Your task to perform on an android device: turn off picture-in-picture Image 0: 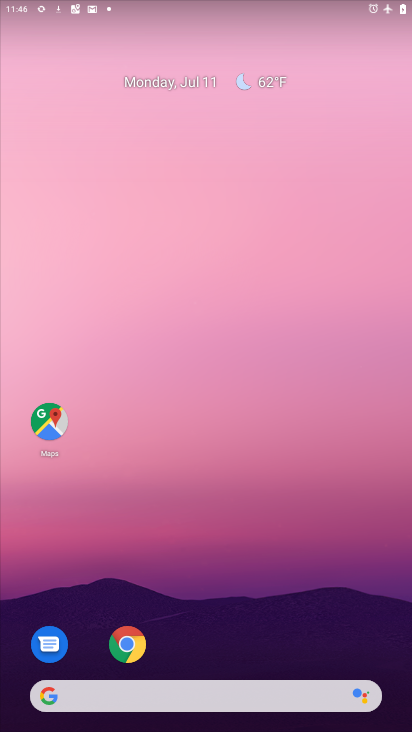
Step 0: drag from (198, 662) to (218, 43)
Your task to perform on an android device: turn off picture-in-picture Image 1: 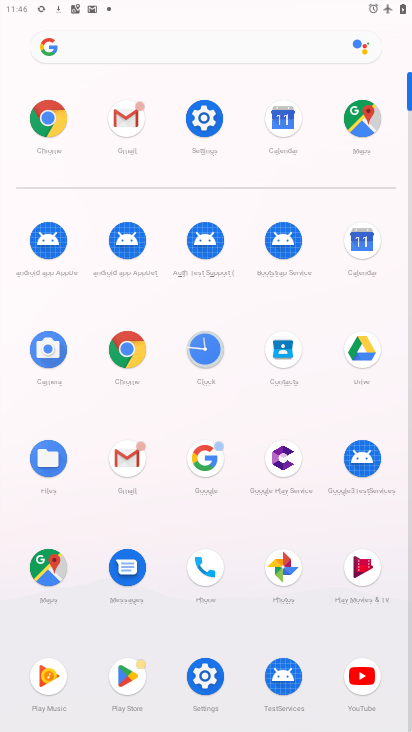
Step 1: click (198, 125)
Your task to perform on an android device: turn off picture-in-picture Image 2: 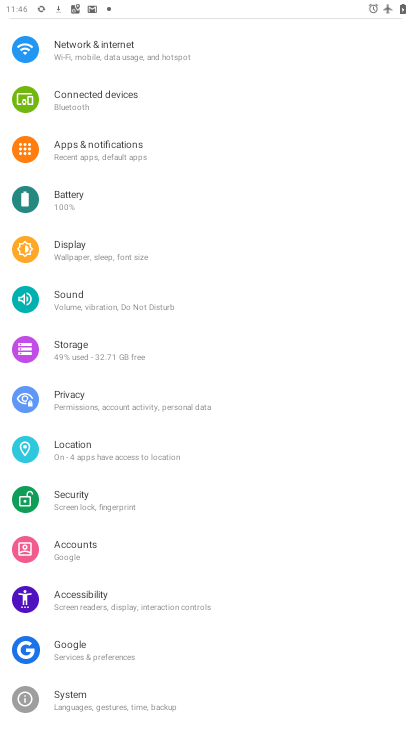
Step 2: drag from (144, 552) to (121, 77)
Your task to perform on an android device: turn off picture-in-picture Image 3: 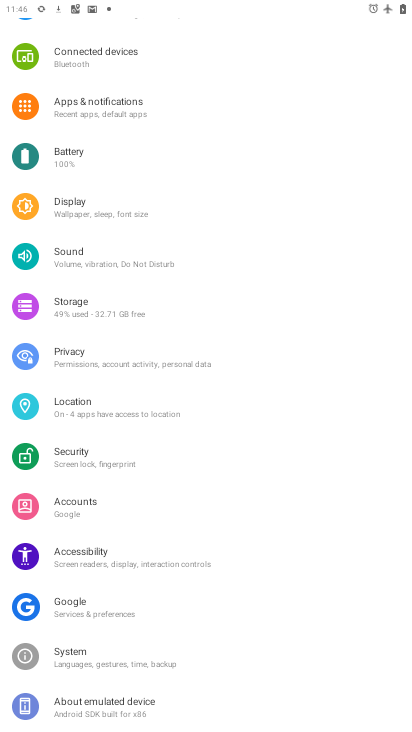
Step 3: drag from (82, 712) to (85, 140)
Your task to perform on an android device: turn off picture-in-picture Image 4: 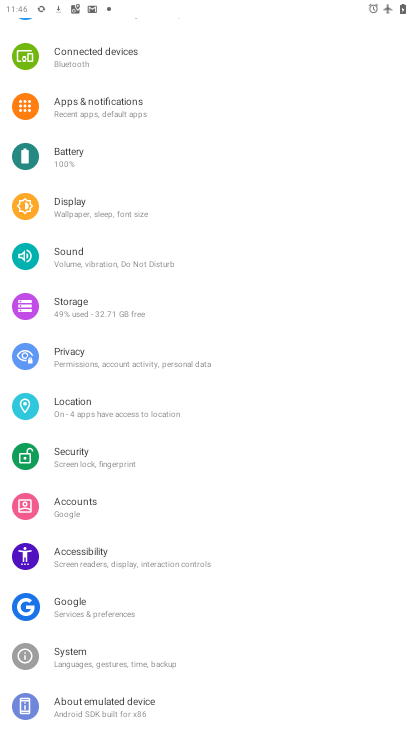
Step 4: click (100, 111)
Your task to perform on an android device: turn off picture-in-picture Image 5: 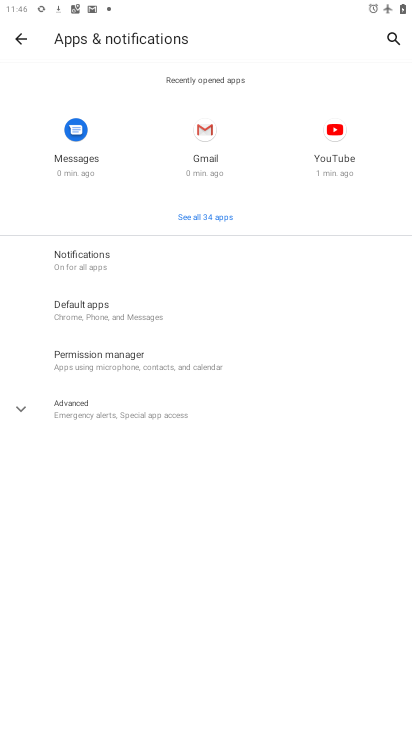
Step 5: click (94, 264)
Your task to perform on an android device: turn off picture-in-picture Image 6: 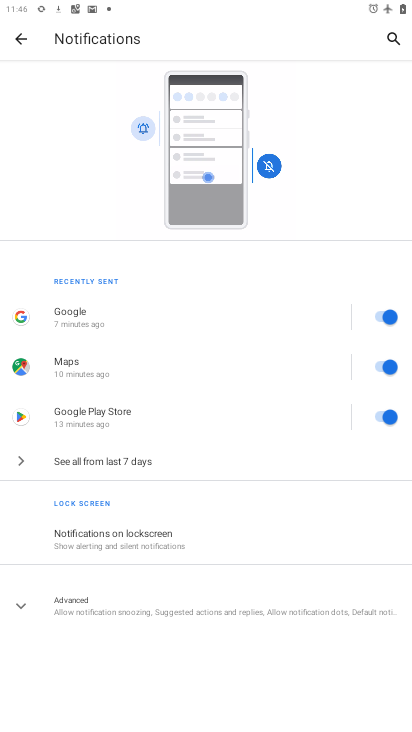
Step 6: click (126, 598)
Your task to perform on an android device: turn off picture-in-picture Image 7: 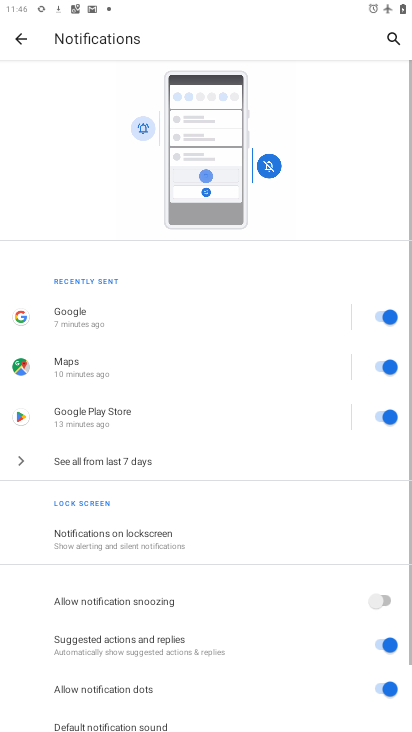
Step 7: task complete